Your task to perform on an android device: turn on location history Image 0: 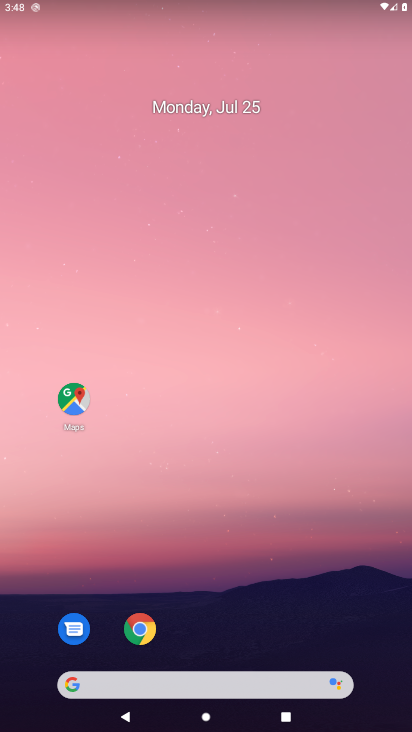
Step 0: drag from (33, 689) to (315, 18)
Your task to perform on an android device: turn on location history Image 1: 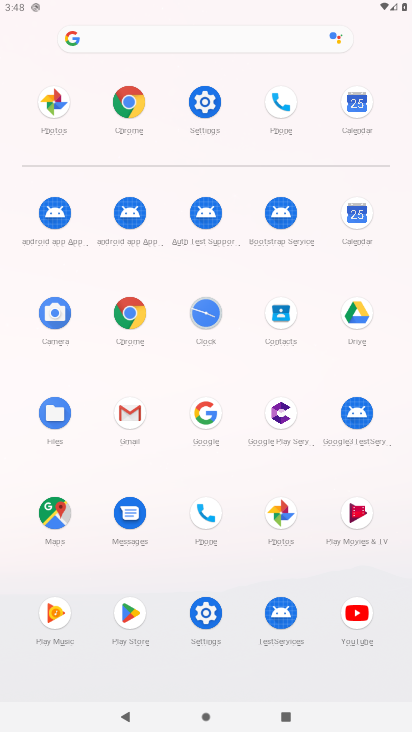
Step 1: click (198, 616)
Your task to perform on an android device: turn on location history Image 2: 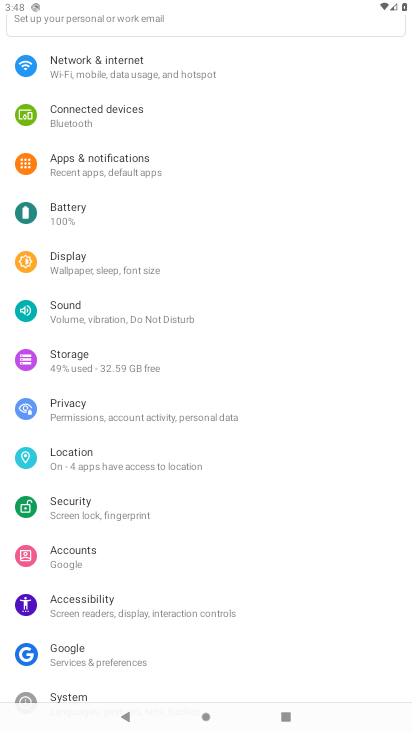
Step 2: click (82, 459)
Your task to perform on an android device: turn on location history Image 3: 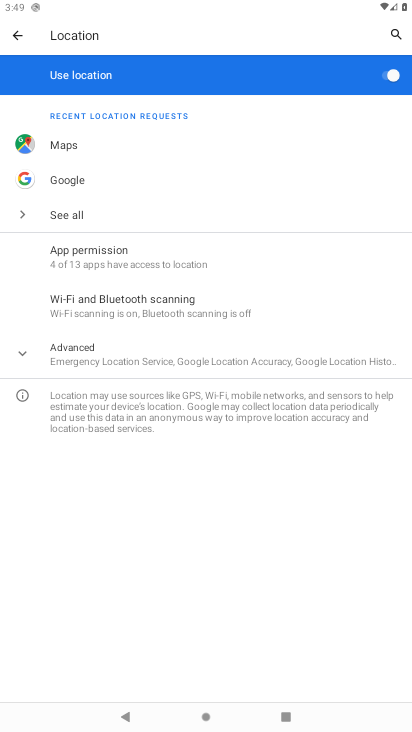
Step 3: click (94, 357)
Your task to perform on an android device: turn on location history Image 4: 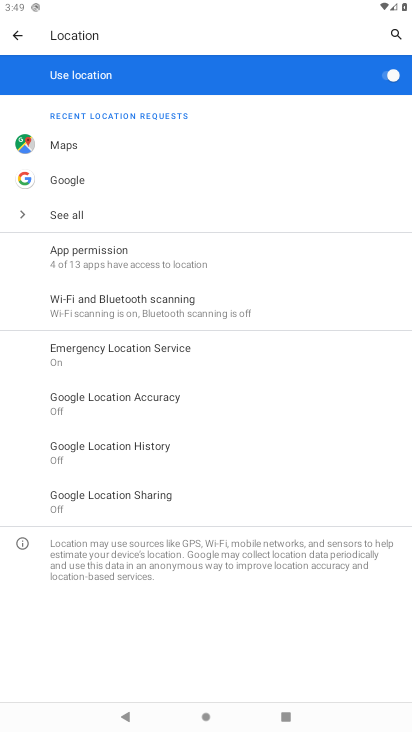
Step 4: click (119, 447)
Your task to perform on an android device: turn on location history Image 5: 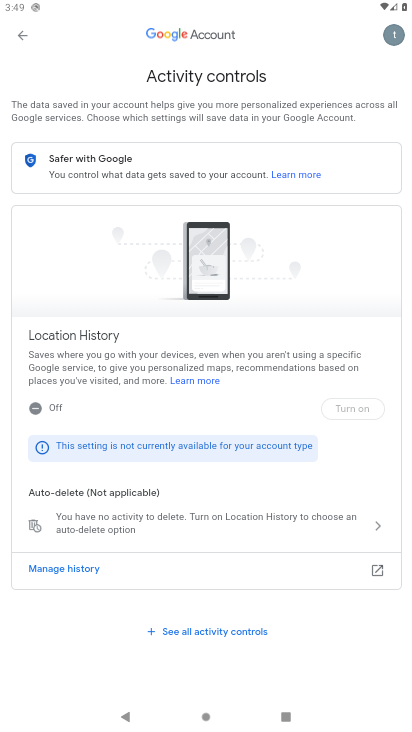
Step 5: click (342, 412)
Your task to perform on an android device: turn on location history Image 6: 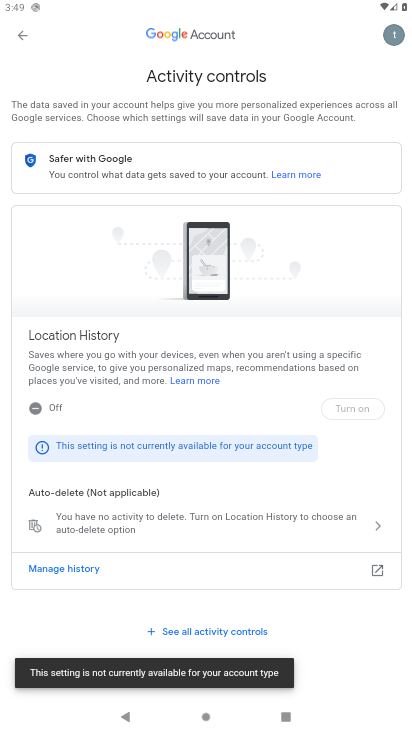
Step 6: click (355, 410)
Your task to perform on an android device: turn on location history Image 7: 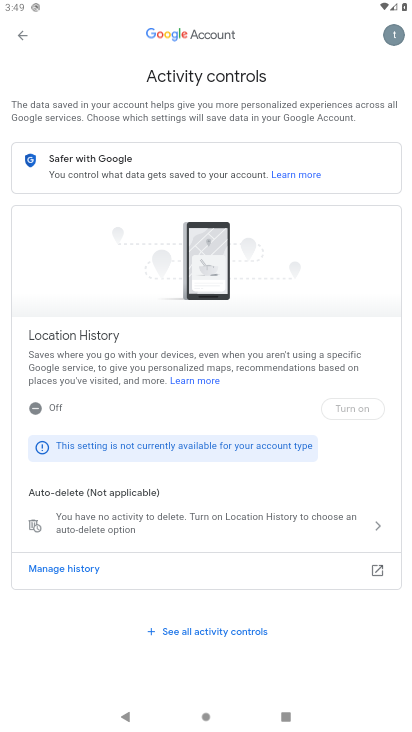
Step 7: task complete